Your task to perform on an android device: turn on the 12-hour format for clock Image 0: 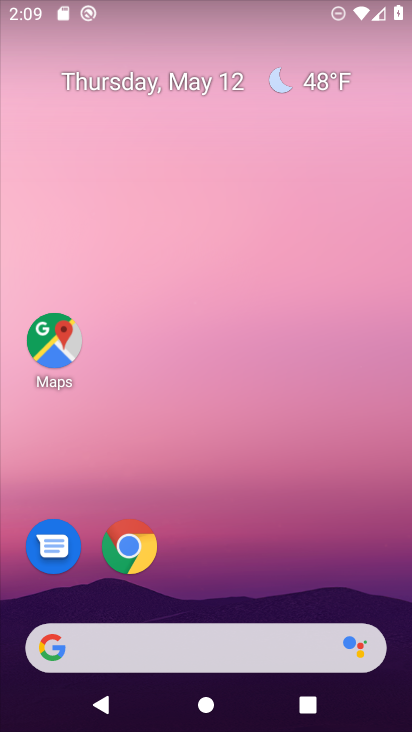
Step 0: drag from (319, 669) to (227, 414)
Your task to perform on an android device: turn on the 12-hour format for clock Image 1: 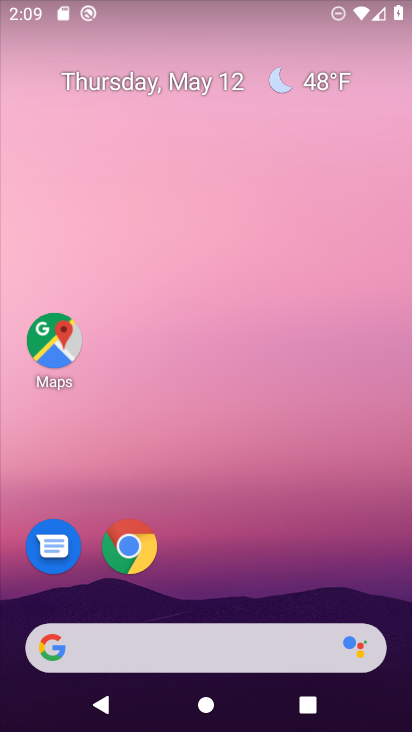
Step 1: drag from (298, 669) to (219, 204)
Your task to perform on an android device: turn on the 12-hour format for clock Image 2: 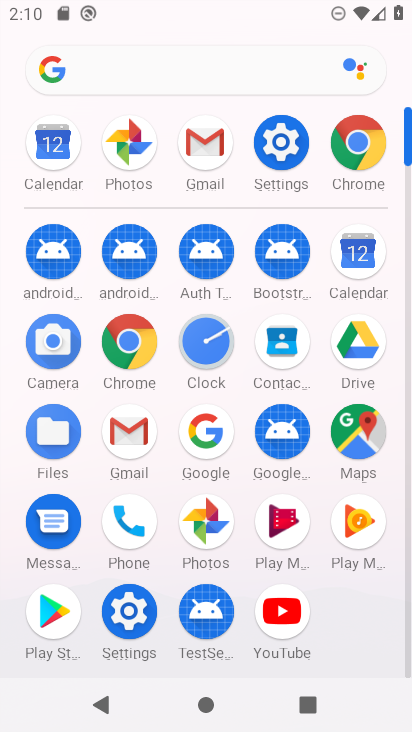
Step 2: click (194, 348)
Your task to perform on an android device: turn on the 12-hour format for clock Image 3: 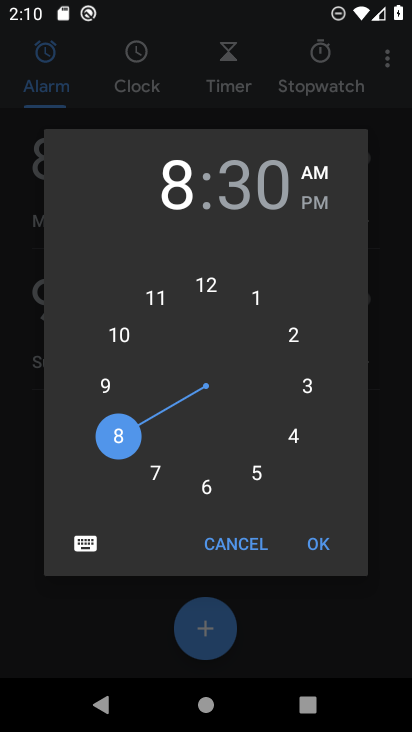
Step 3: click (344, 86)
Your task to perform on an android device: turn on the 12-hour format for clock Image 4: 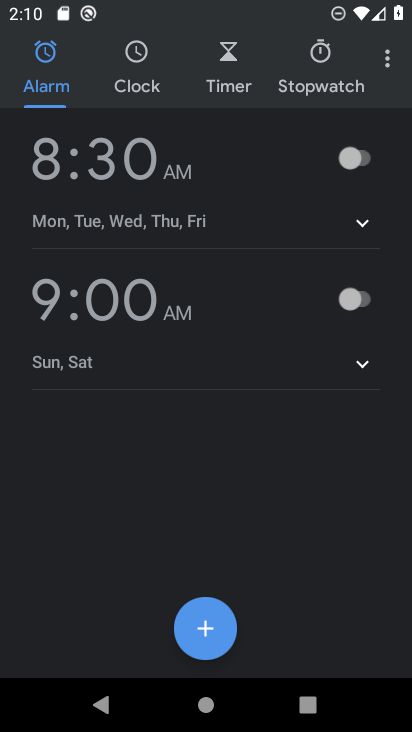
Step 4: click (390, 69)
Your task to perform on an android device: turn on the 12-hour format for clock Image 5: 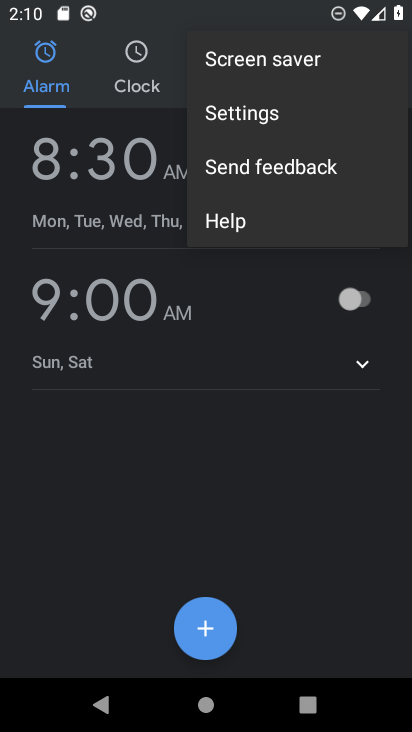
Step 5: click (252, 111)
Your task to perform on an android device: turn on the 12-hour format for clock Image 6: 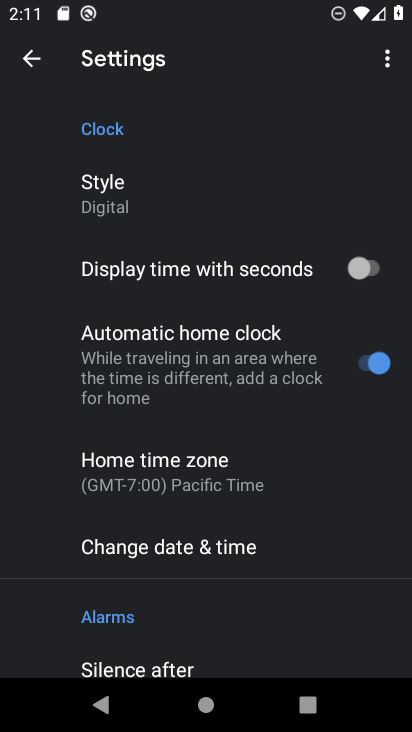
Step 6: click (209, 556)
Your task to perform on an android device: turn on the 12-hour format for clock Image 7: 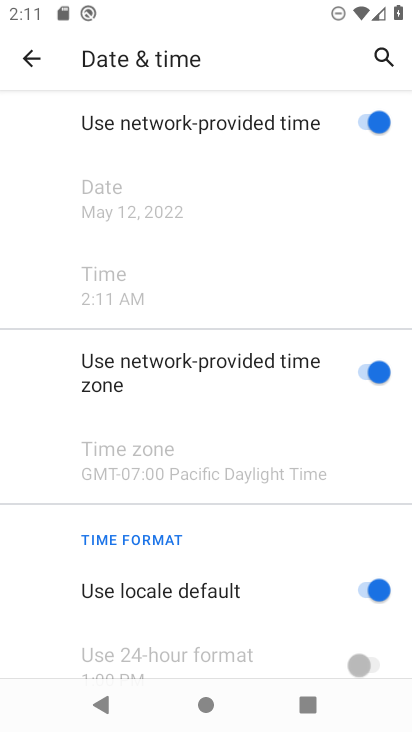
Step 7: drag from (319, 550) to (335, 429)
Your task to perform on an android device: turn on the 12-hour format for clock Image 8: 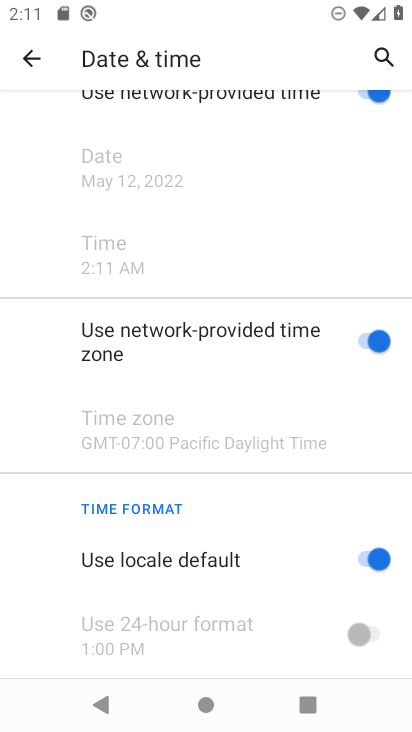
Step 8: click (367, 554)
Your task to perform on an android device: turn on the 12-hour format for clock Image 9: 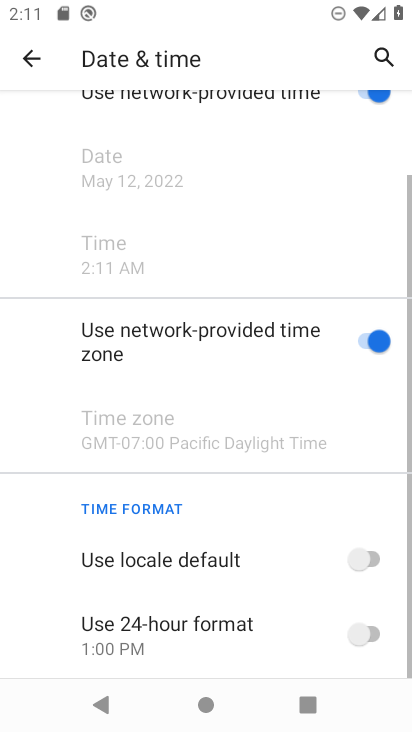
Step 9: click (375, 631)
Your task to perform on an android device: turn on the 12-hour format for clock Image 10: 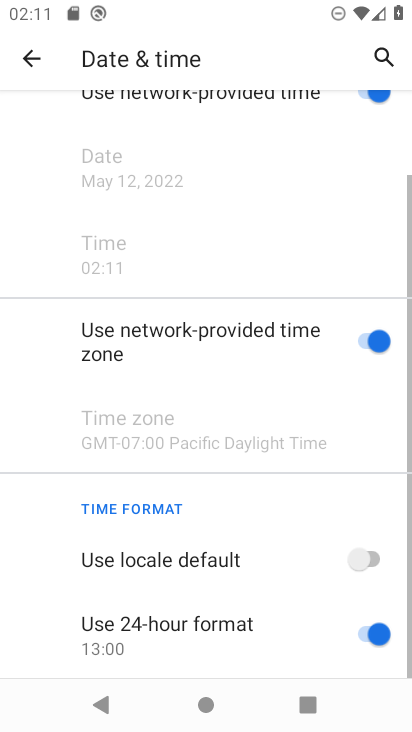
Step 10: click (377, 629)
Your task to perform on an android device: turn on the 12-hour format for clock Image 11: 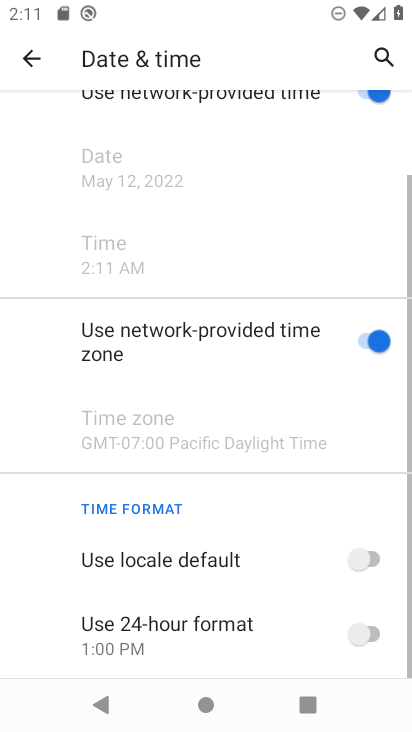
Step 11: task complete